Your task to perform on an android device: turn on location history Image 0: 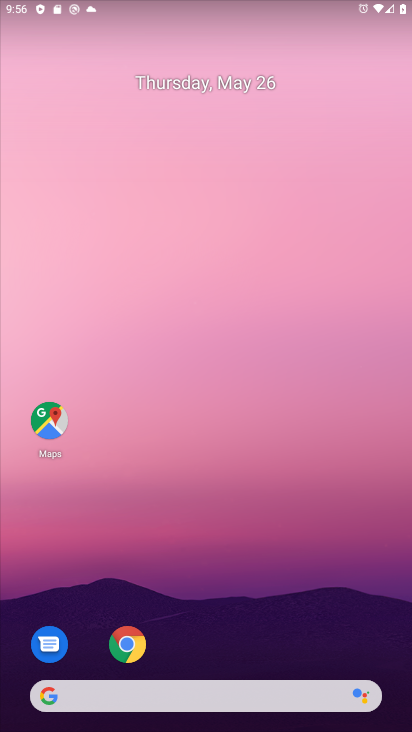
Step 0: drag from (204, 663) to (237, 174)
Your task to perform on an android device: turn on location history Image 1: 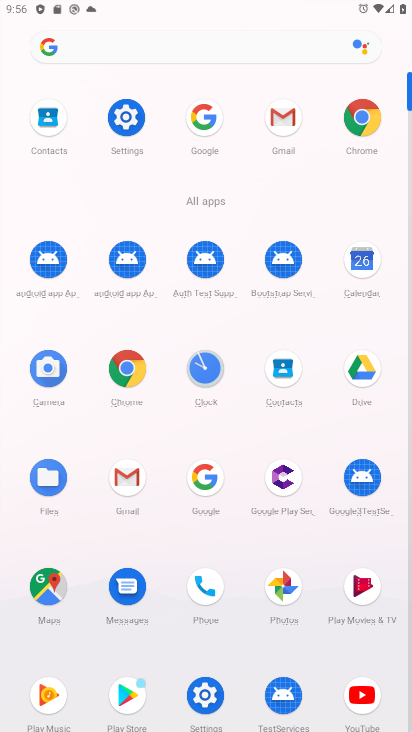
Step 1: click (132, 116)
Your task to perform on an android device: turn on location history Image 2: 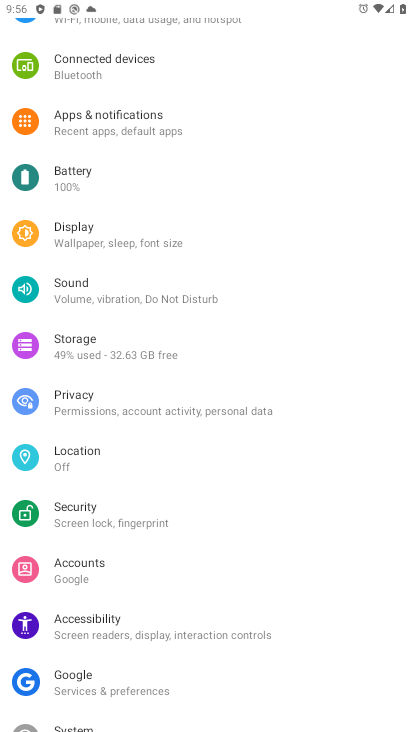
Step 2: click (163, 463)
Your task to perform on an android device: turn on location history Image 3: 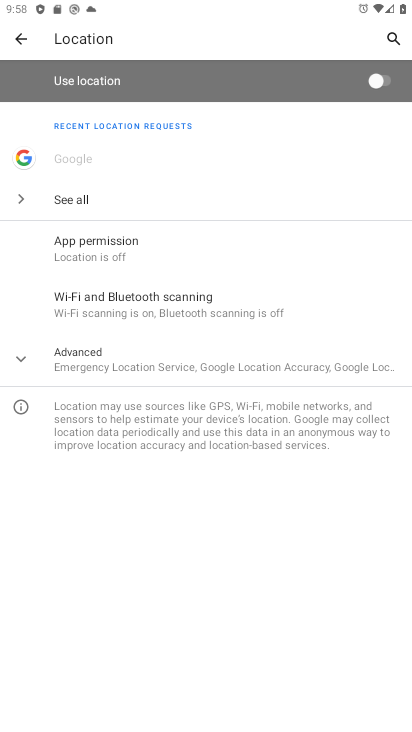
Step 3: click (187, 356)
Your task to perform on an android device: turn on location history Image 4: 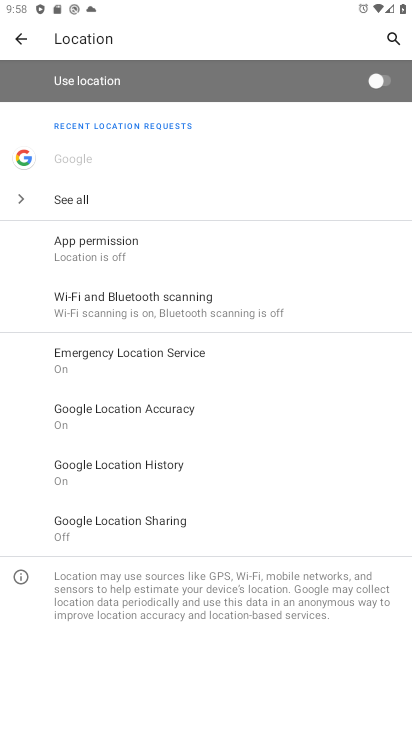
Step 4: click (208, 464)
Your task to perform on an android device: turn on location history Image 5: 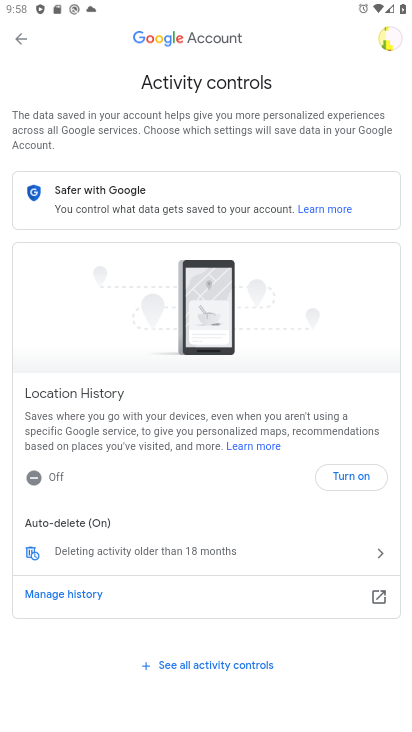
Step 5: click (345, 476)
Your task to perform on an android device: turn on location history Image 6: 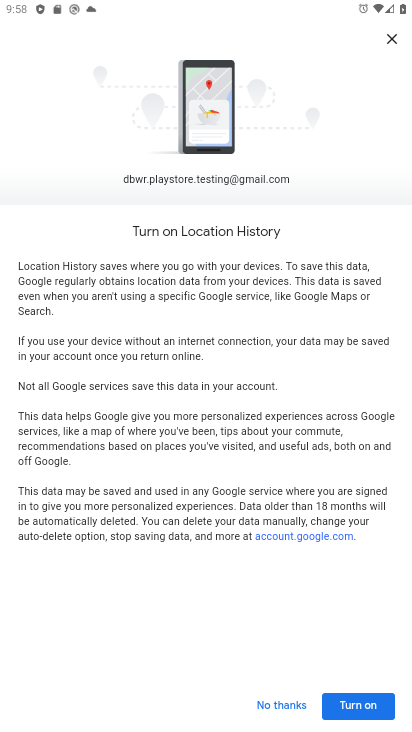
Step 6: click (361, 702)
Your task to perform on an android device: turn on location history Image 7: 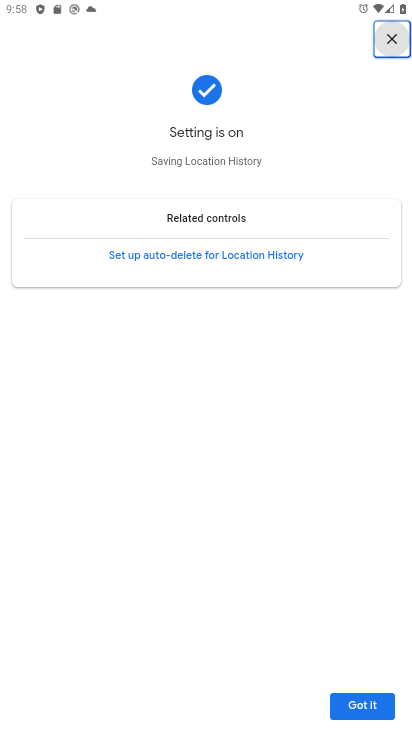
Step 7: click (361, 702)
Your task to perform on an android device: turn on location history Image 8: 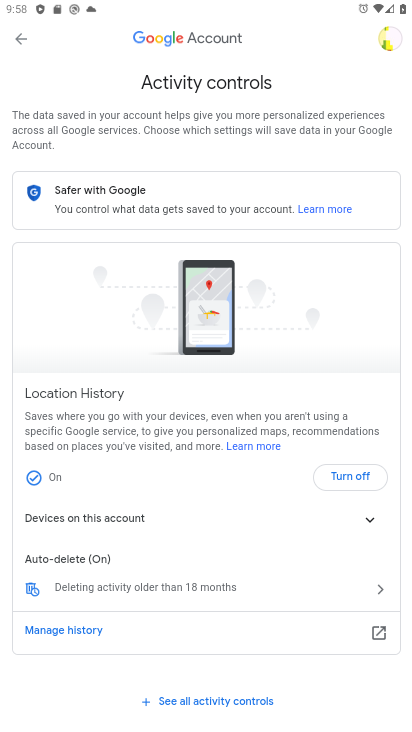
Step 8: task complete